Your task to perform on an android device: check battery use Image 0: 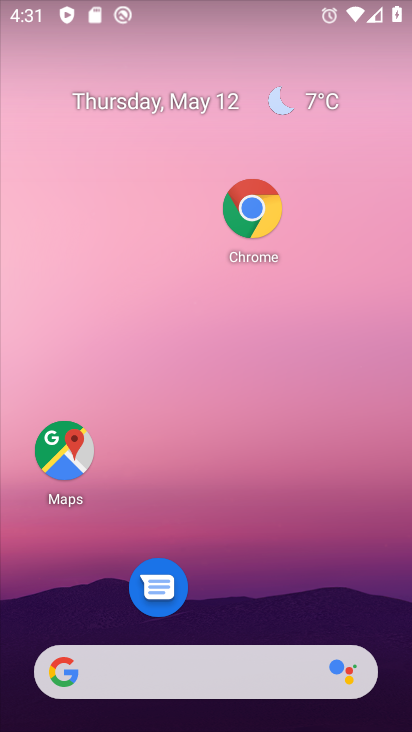
Step 0: drag from (247, 639) to (233, 152)
Your task to perform on an android device: check battery use Image 1: 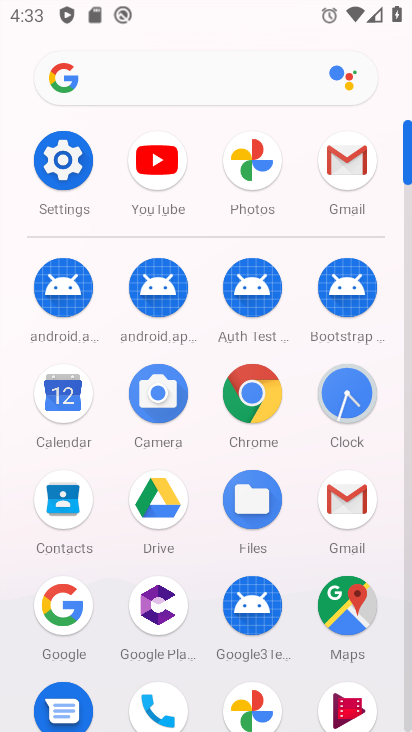
Step 1: drag from (304, 621) to (340, 239)
Your task to perform on an android device: check battery use Image 2: 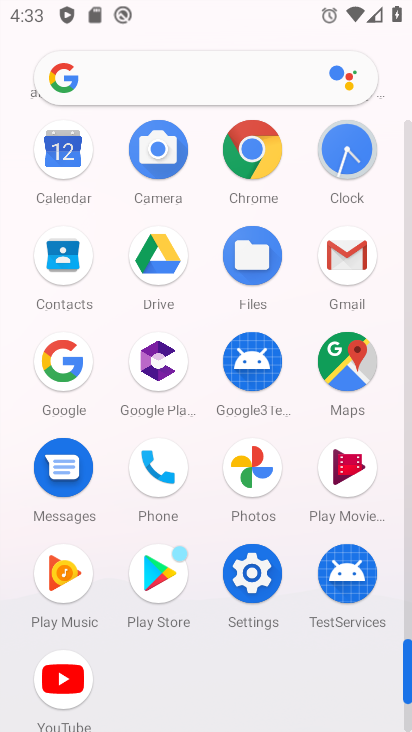
Step 2: click (263, 574)
Your task to perform on an android device: check battery use Image 3: 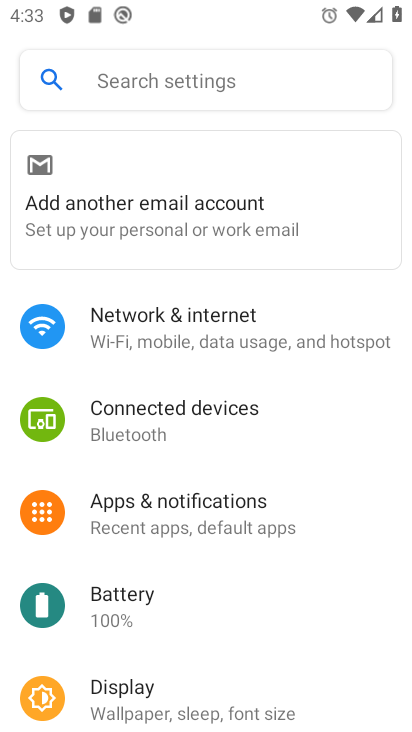
Step 3: drag from (184, 648) to (220, 391)
Your task to perform on an android device: check battery use Image 4: 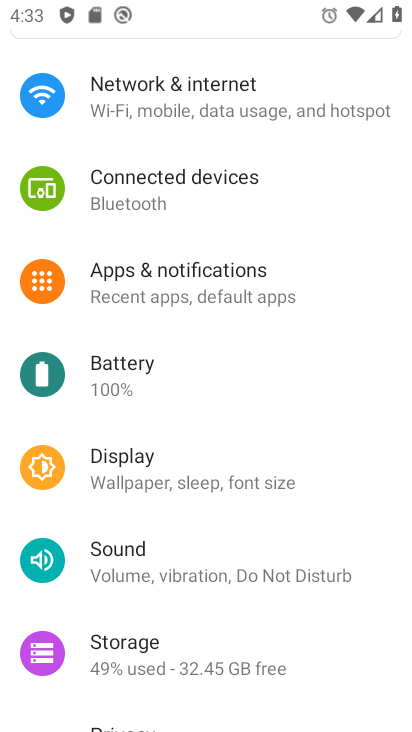
Step 4: click (135, 377)
Your task to perform on an android device: check battery use Image 5: 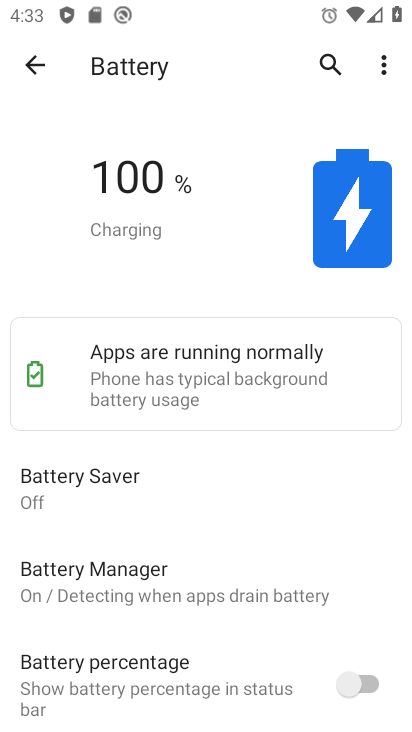
Step 5: task complete